Your task to perform on an android device: delete the emails in spam in the gmail app Image 0: 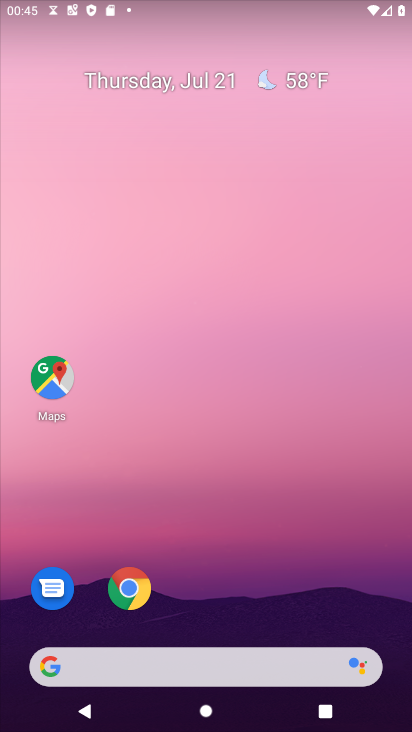
Step 0: drag from (221, 588) to (204, 104)
Your task to perform on an android device: delete the emails in spam in the gmail app Image 1: 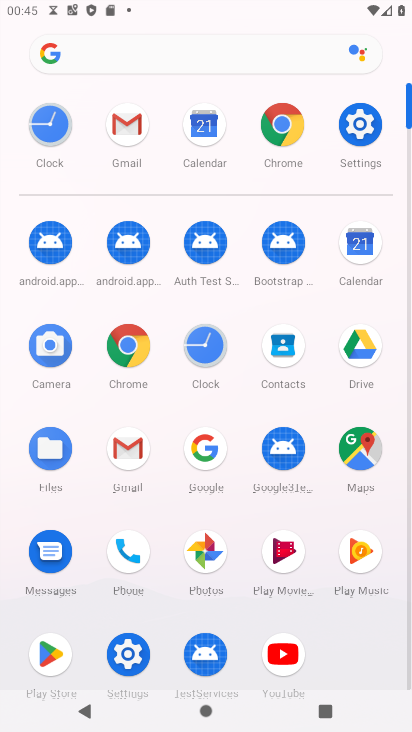
Step 1: click (130, 464)
Your task to perform on an android device: delete the emails in spam in the gmail app Image 2: 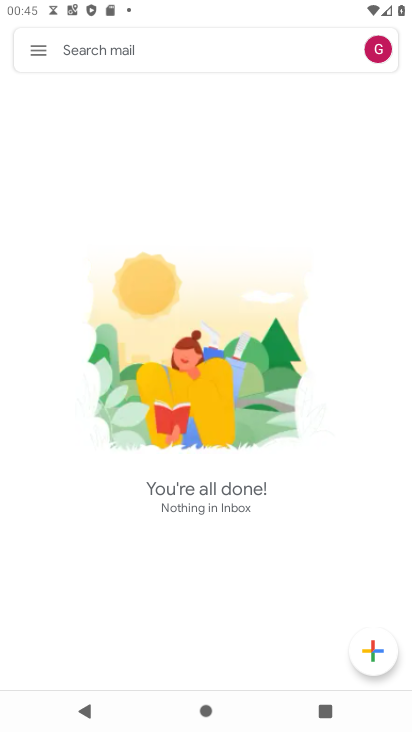
Step 2: click (46, 46)
Your task to perform on an android device: delete the emails in spam in the gmail app Image 3: 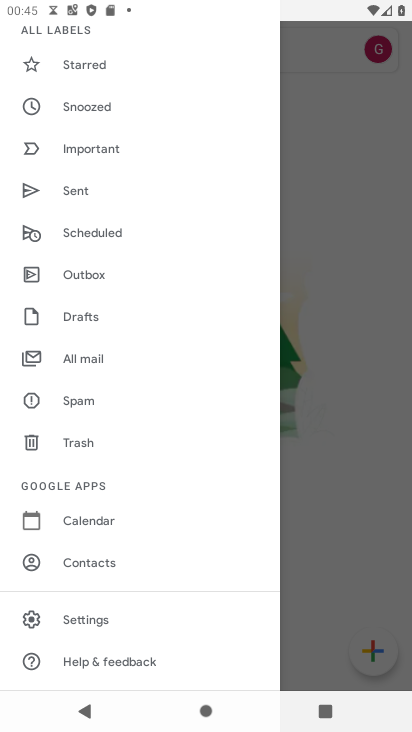
Step 3: click (82, 404)
Your task to perform on an android device: delete the emails in spam in the gmail app Image 4: 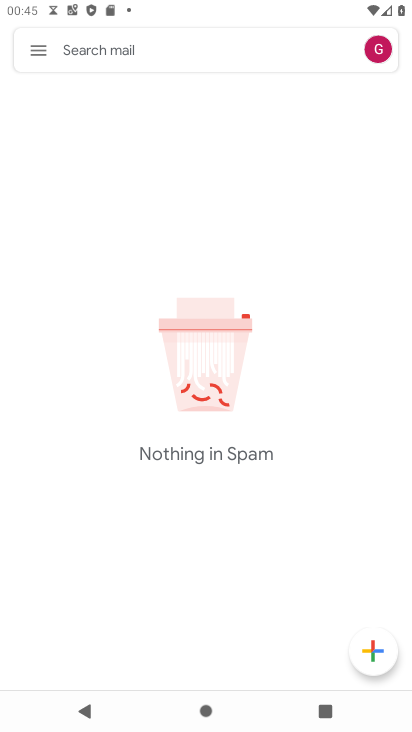
Step 4: task complete